Your task to perform on an android device: move an email to a new category in the gmail app Image 0: 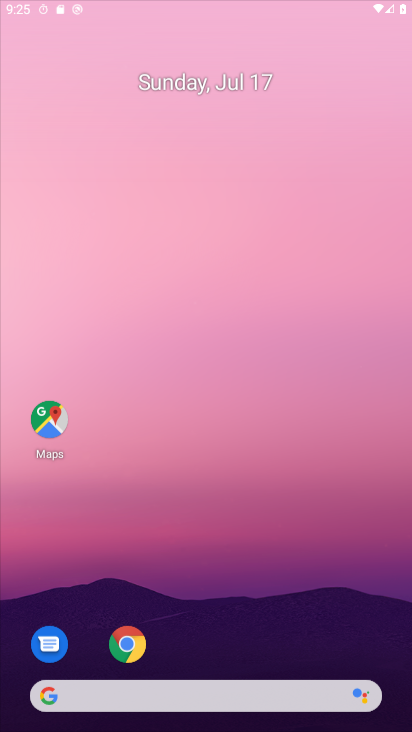
Step 0: click (234, 198)
Your task to perform on an android device: move an email to a new category in the gmail app Image 1: 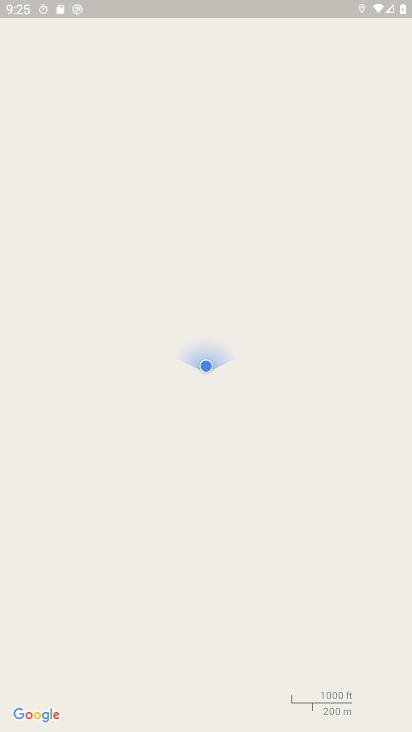
Step 1: press home button
Your task to perform on an android device: move an email to a new category in the gmail app Image 2: 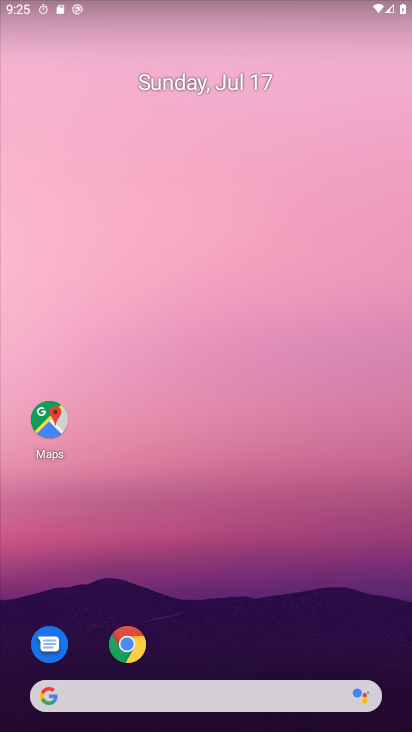
Step 2: drag from (250, 641) to (312, 117)
Your task to perform on an android device: move an email to a new category in the gmail app Image 3: 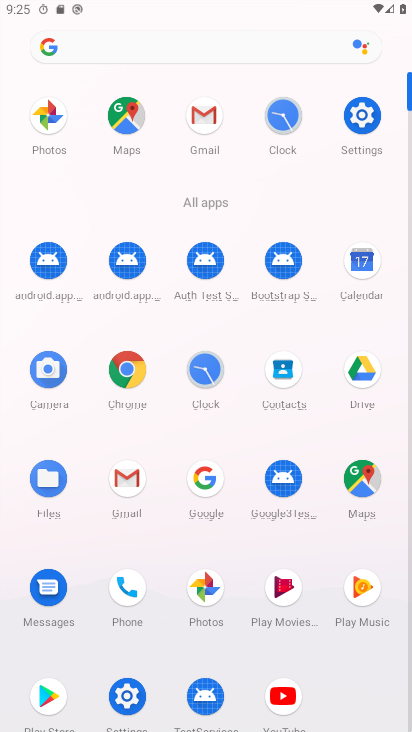
Step 3: click (119, 489)
Your task to perform on an android device: move an email to a new category in the gmail app Image 4: 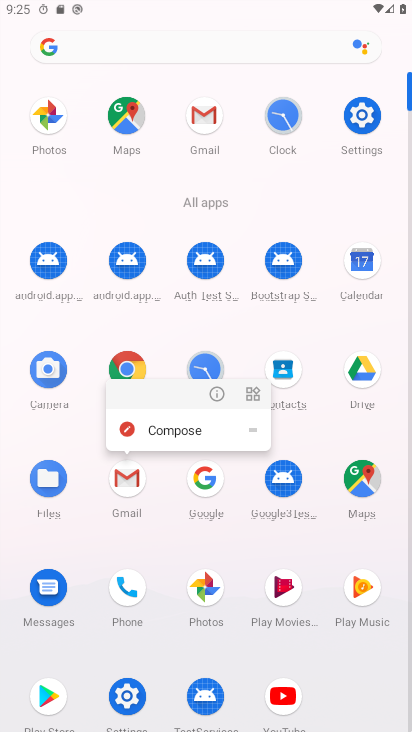
Step 4: click (119, 489)
Your task to perform on an android device: move an email to a new category in the gmail app Image 5: 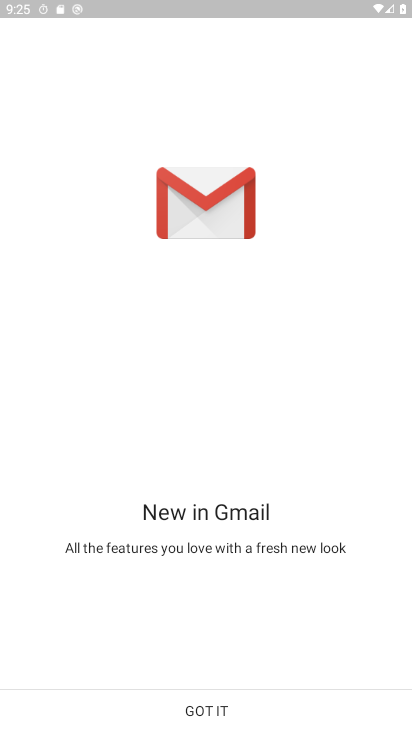
Step 5: click (211, 708)
Your task to perform on an android device: move an email to a new category in the gmail app Image 6: 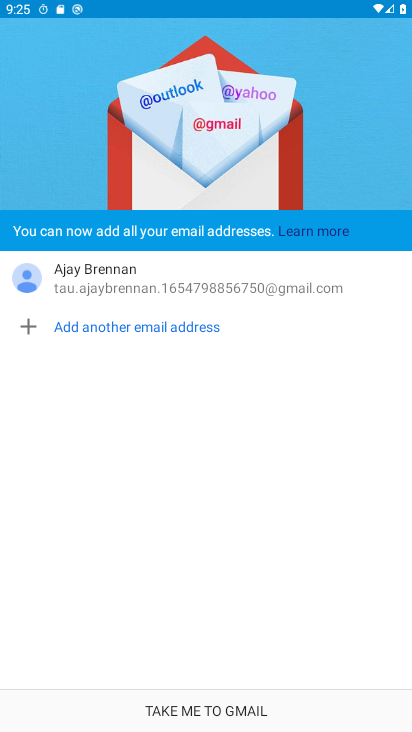
Step 6: click (211, 708)
Your task to perform on an android device: move an email to a new category in the gmail app Image 7: 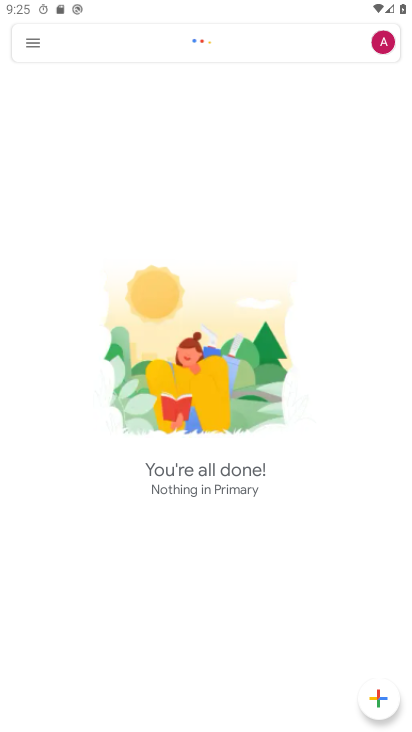
Step 7: click (51, 44)
Your task to perform on an android device: move an email to a new category in the gmail app Image 8: 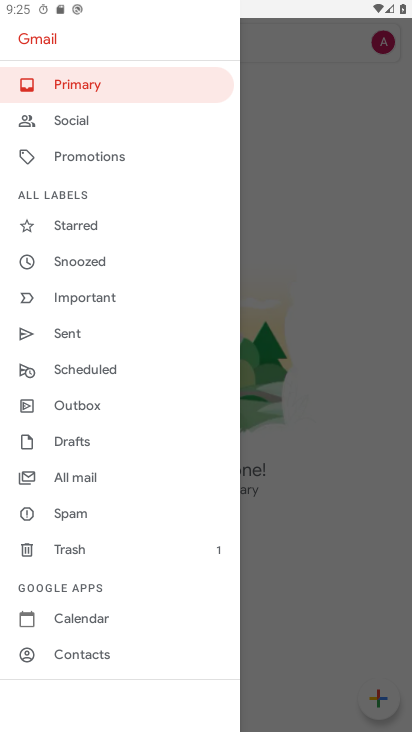
Step 8: click (94, 475)
Your task to perform on an android device: move an email to a new category in the gmail app Image 9: 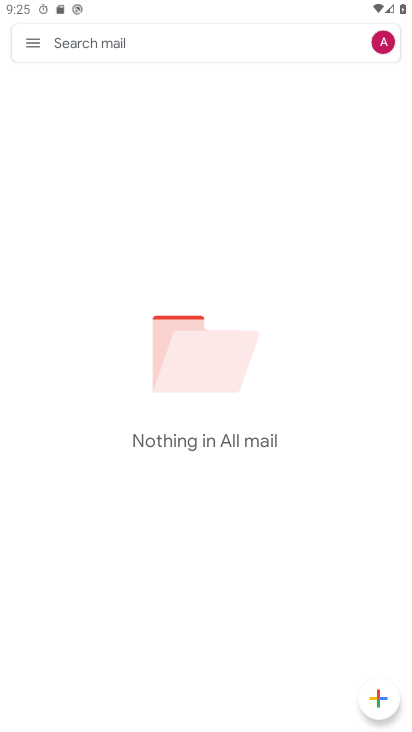
Step 9: task complete